Your task to perform on an android device: Open location settings Image 0: 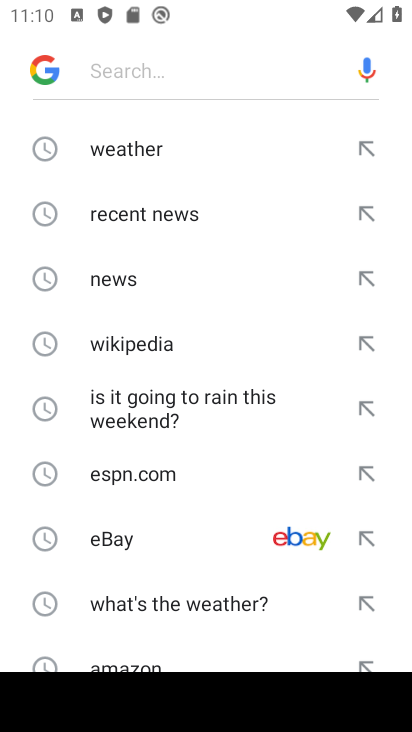
Step 0: press home button
Your task to perform on an android device: Open location settings Image 1: 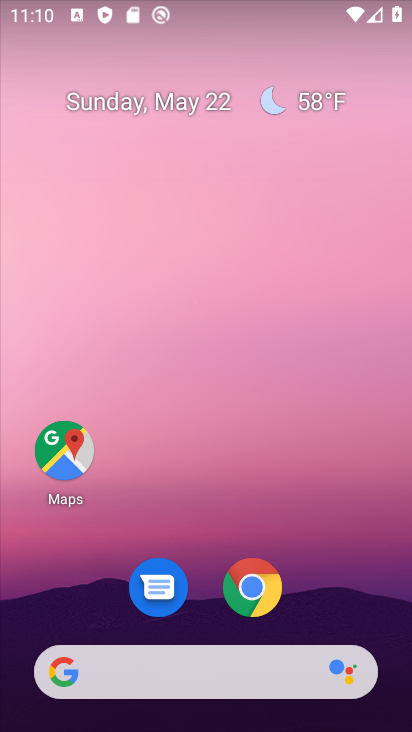
Step 1: drag from (183, 507) to (195, 37)
Your task to perform on an android device: Open location settings Image 2: 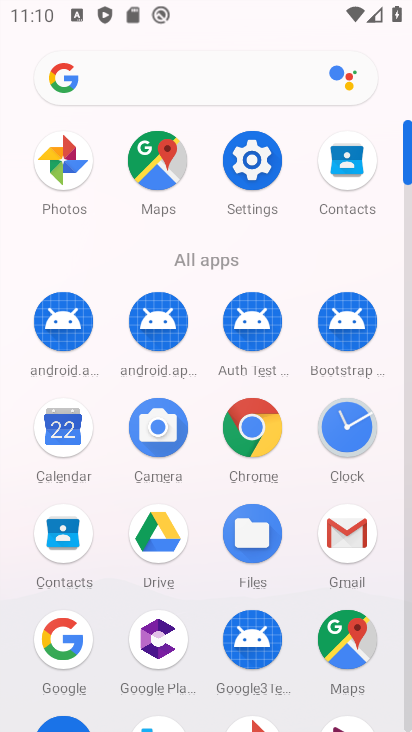
Step 2: click (252, 152)
Your task to perform on an android device: Open location settings Image 3: 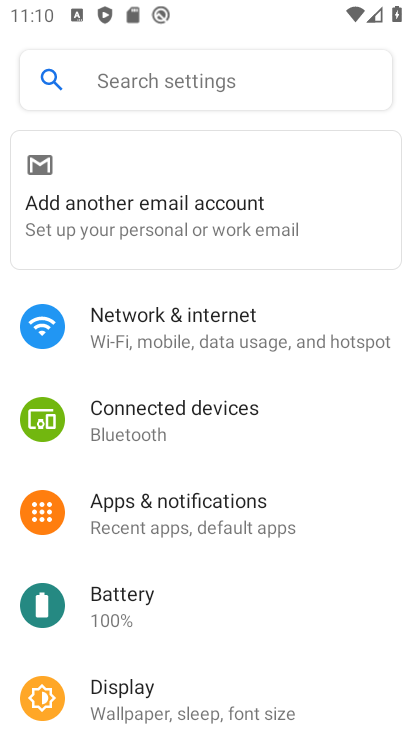
Step 3: drag from (252, 553) to (298, 0)
Your task to perform on an android device: Open location settings Image 4: 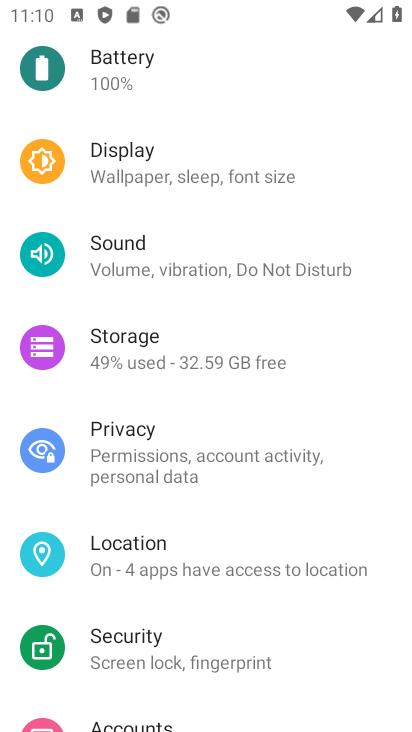
Step 4: click (219, 554)
Your task to perform on an android device: Open location settings Image 5: 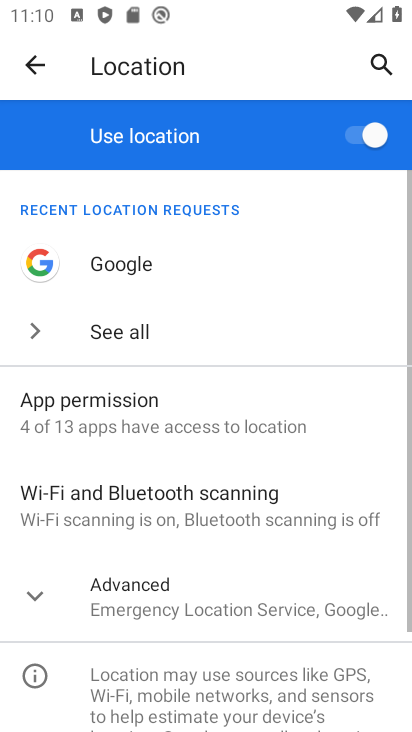
Step 5: task complete